Your task to perform on an android device: search for starred emails in the gmail app Image 0: 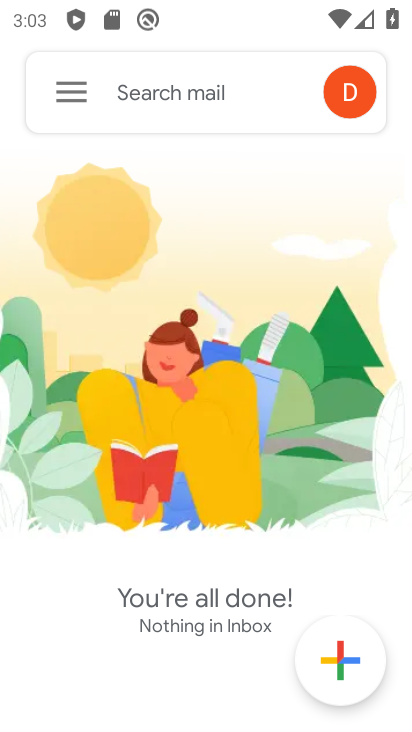
Step 0: click (55, 102)
Your task to perform on an android device: search for starred emails in the gmail app Image 1: 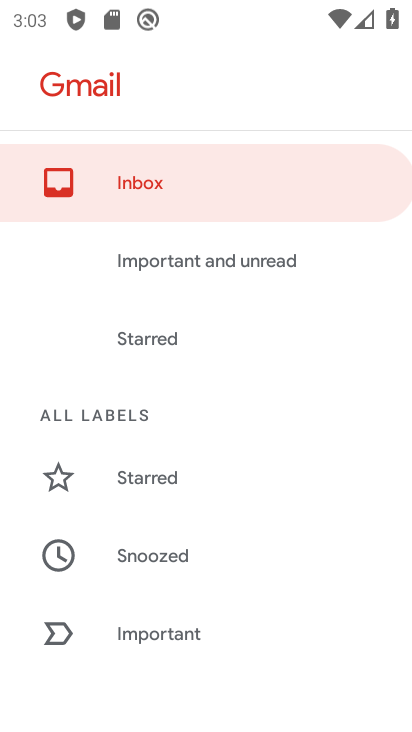
Step 1: drag from (236, 651) to (235, 287)
Your task to perform on an android device: search for starred emails in the gmail app Image 2: 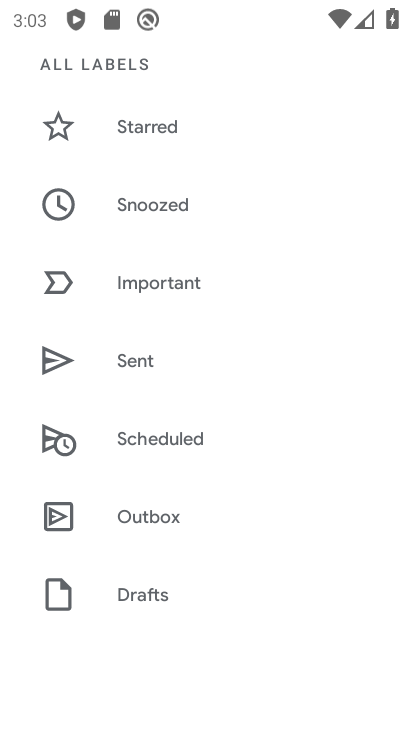
Step 2: click (143, 125)
Your task to perform on an android device: search for starred emails in the gmail app Image 3: 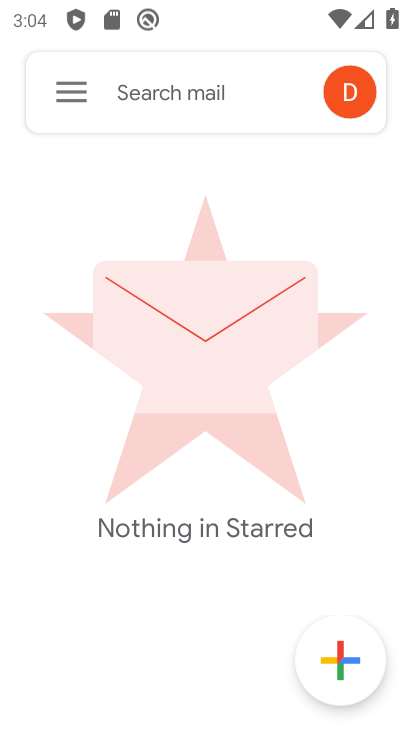
Step 3: task complete